Your task to perform on an android device: create a new album in the google photos Image 0: 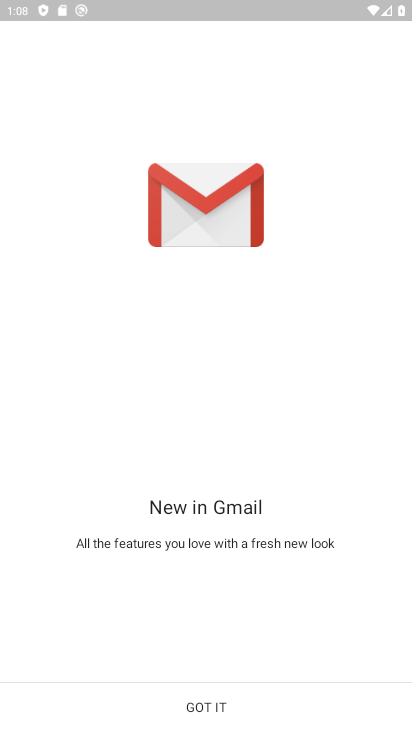
Step 0: click (198, 730)
Your task to perform on an android device: create a new album in the google photos Image 1: 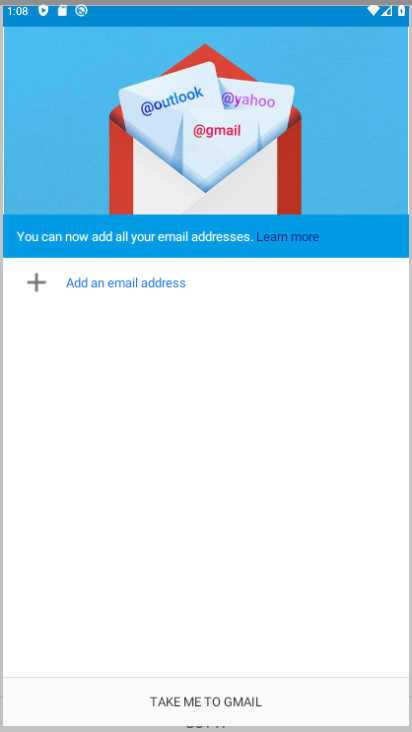
Step 1: task complete